Your task to perform on an android device: Search for Mexican restaurants on Maps Image 0: 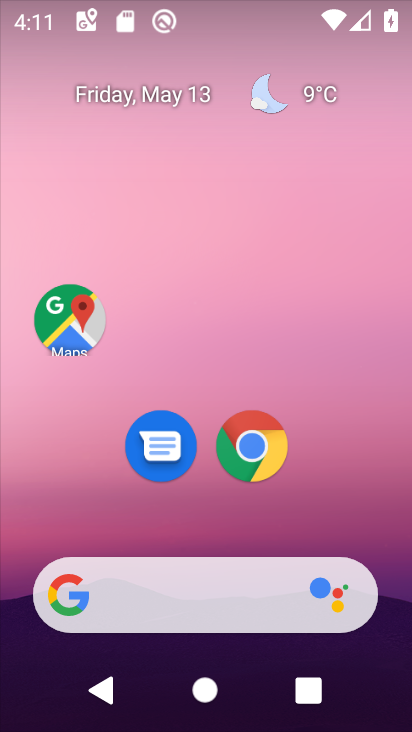
Step 0: click (65, 301)
Your task to perform on an android device: Search for Mexican restaurants on Maps Image 1: 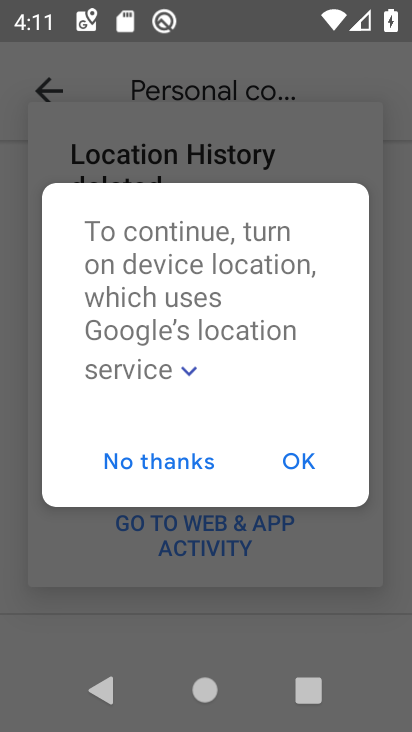
Step 1: click (200, 459)
Your task to perform on an android device: Search for Mexican restaurants on Maps Image 2: 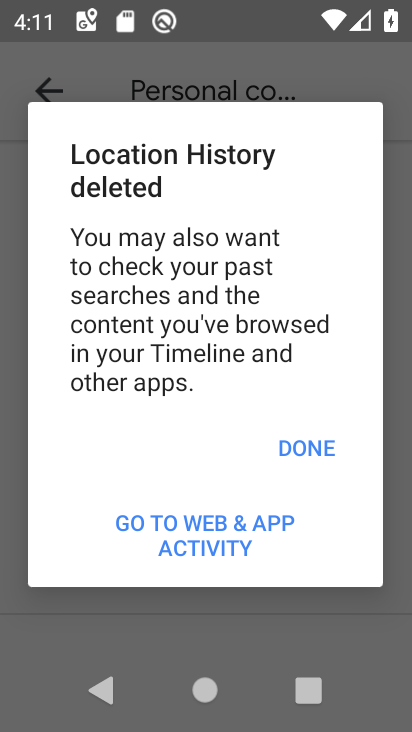
Step 2: press back button
Your task to perform on an android device: Search for Mexican restaurants on Maps Image 3: 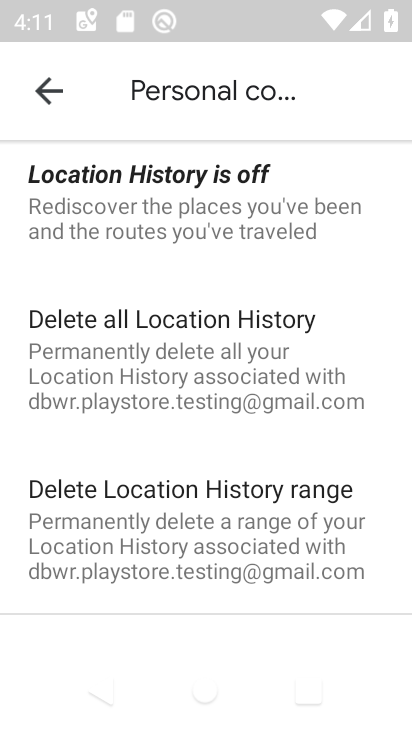
Step 3: click (40, 94)
Your task to perform on an android device: Search for Mexican restaurants on Maps Image 4: 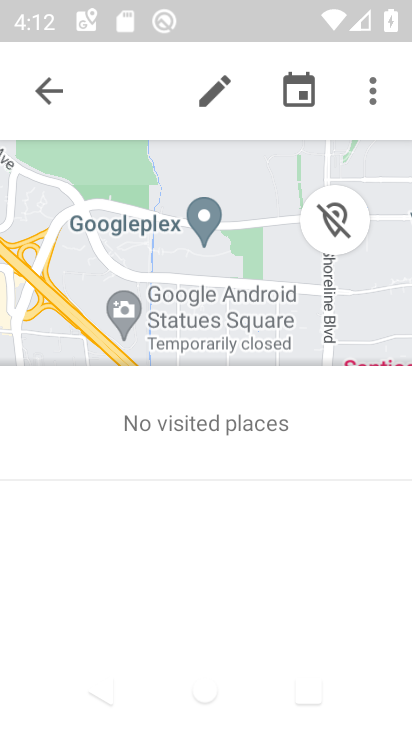
Step 4: click (50, 101)
Your task to perform on an android device: Search for Mexican restaurants on Maps Image 5: 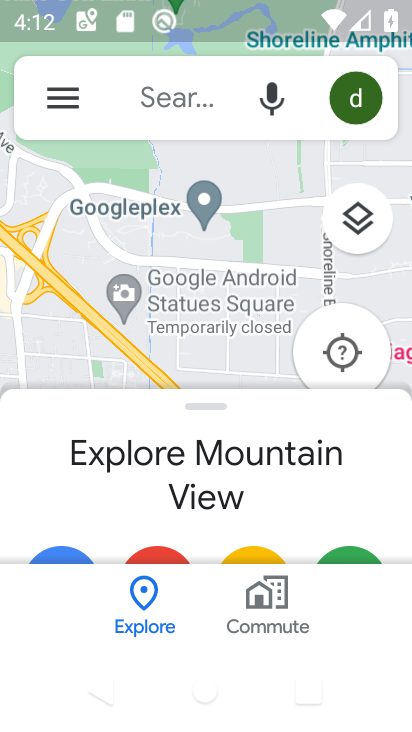
Step 5: click (117, 115)
Your task to perform on an android device: Search for Mexican restaurants on Maps Image 6: 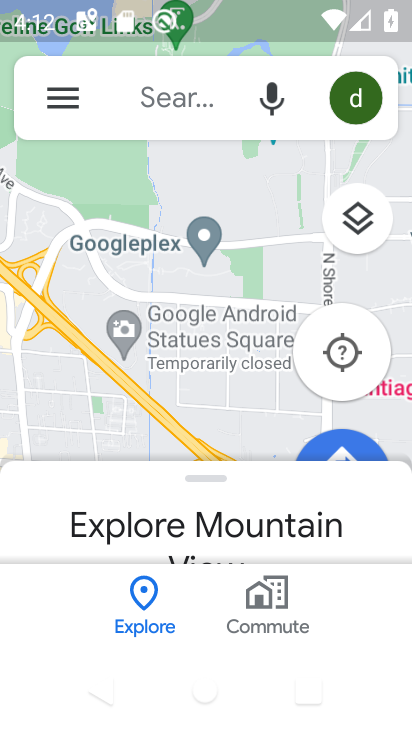
Step 6: click (138, 115)
Your task to perform on an android device: Search for Mexican restaurants on Maps Image 7: 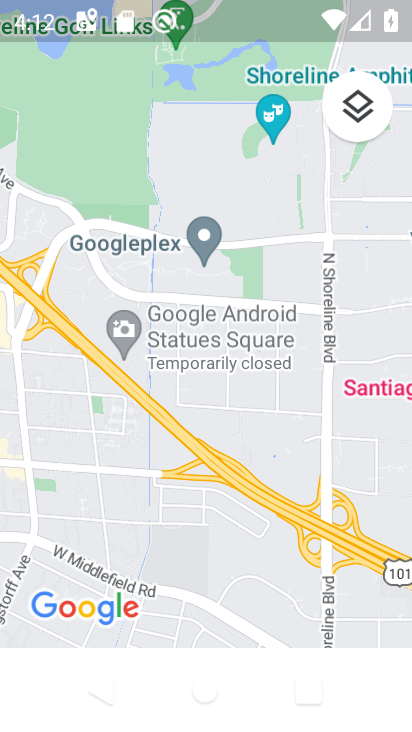
Step 7: type "mexican restaurants"
Your task to perform on an android device: Search for Mexican restaurants on Maps Image 8: 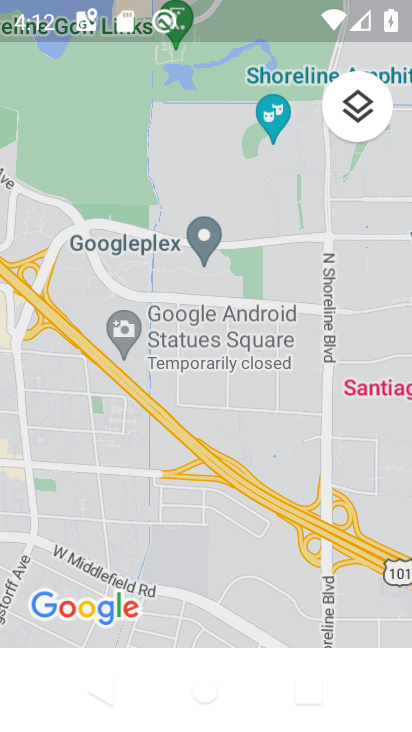
Step 8: task complete